Your task to perform on an android device: Go to Amazon Image 0: 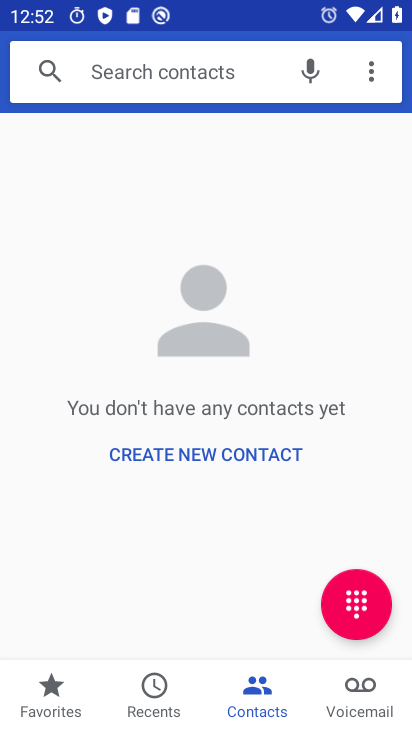
Step 0: press home button
Your task to perform on an android device: Go to Amazon Image 1: 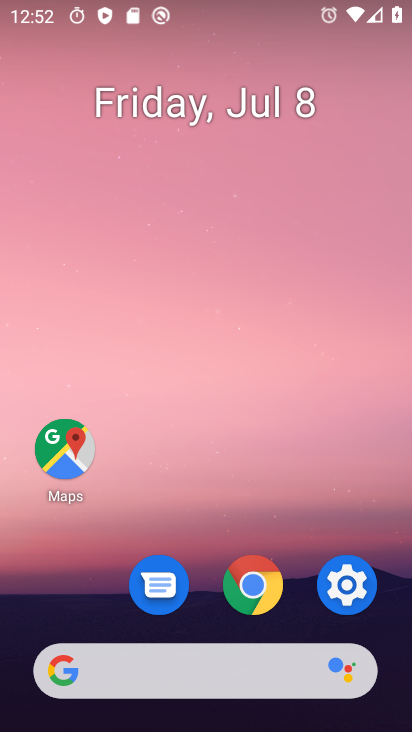
Step 1: click (245, 577)
Your task to perform on an android device: Go to Amazon Image 2: 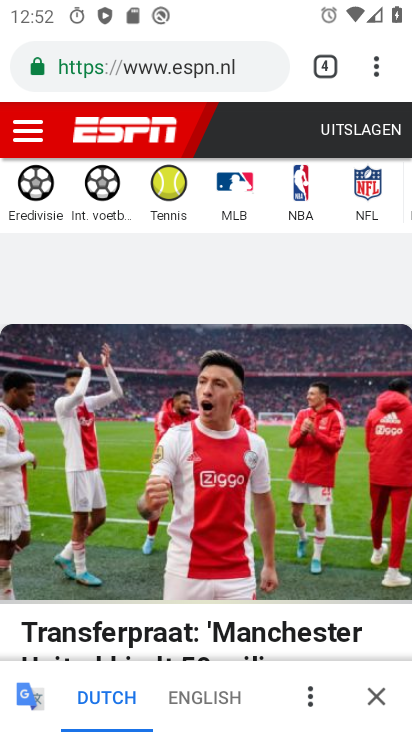
Step 2: click (325, 68)
Your task to perform on an android device: Go to Amazon Image 3: 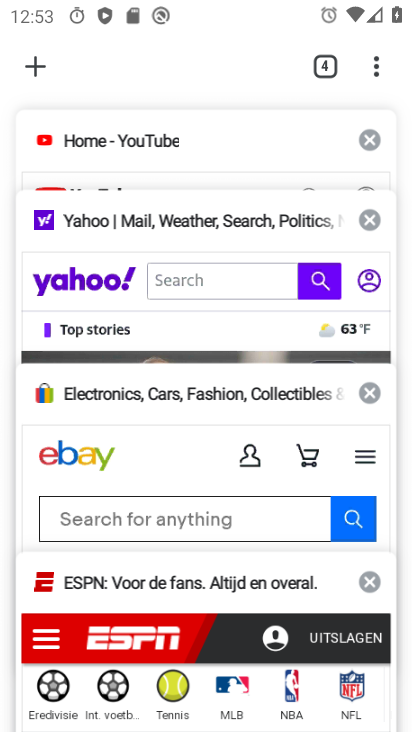
Step 3: click (42, 66)
Your task to perform on an android device: Go to Amazon Image 4: 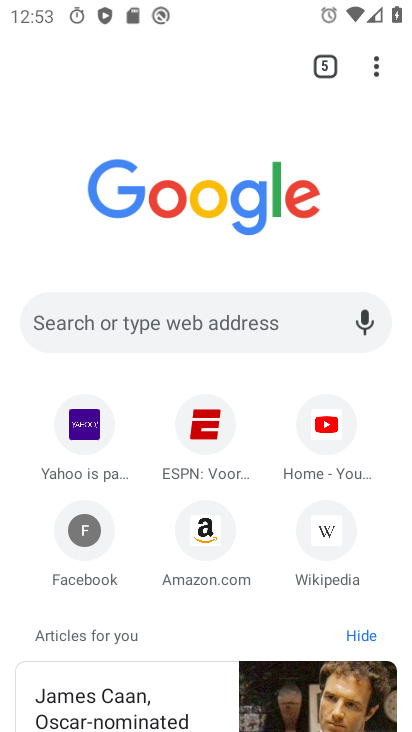
Step 4: click (204, 542)
Your task to perform on an android device: Go to Amazon Image 5: 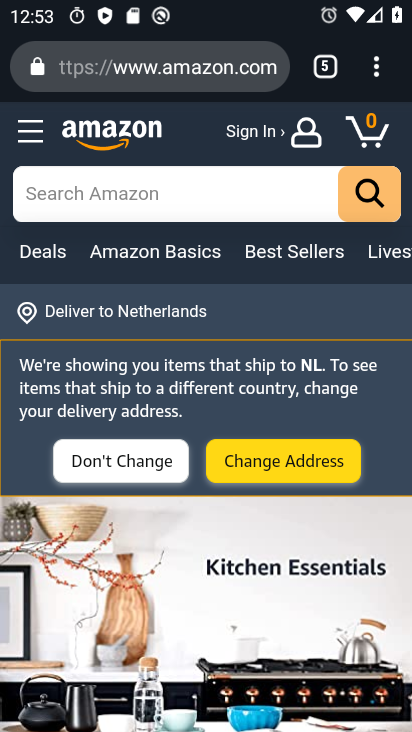
Step 5: task complete